Your task to perform on an android device: create a new album in the google photos Image 0: 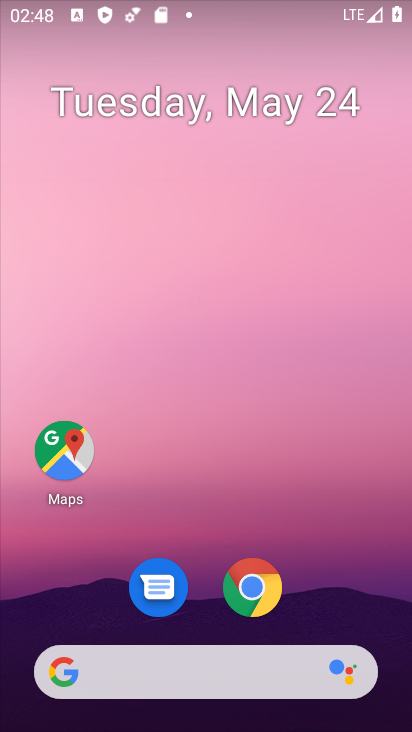
Step 0: drag from (235, 699) to (323, 119)
Your task to perform on an android device: create a new album in the google photos Image 1: 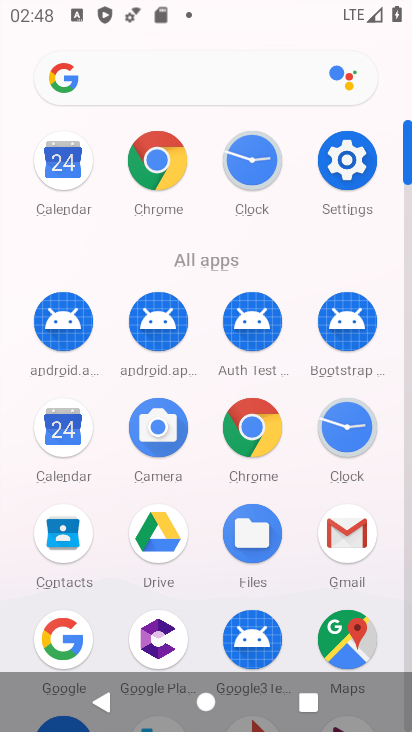
Step 1: drag from (242, 580) to (237, 86)
Your task to perform on an android device: create a new album in the google photos Image 2: 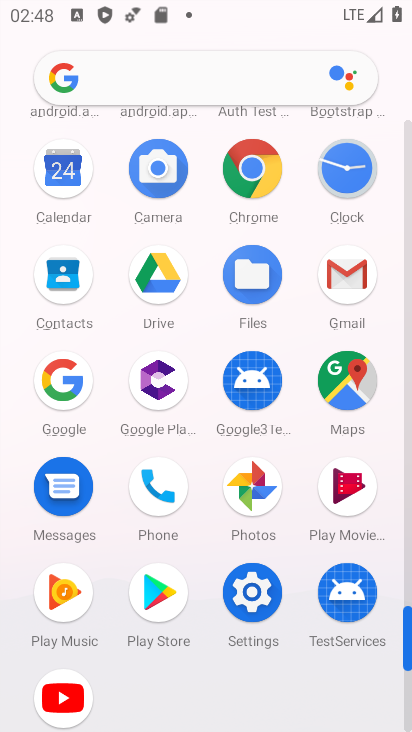
Step 2: click (256, 486)
Your task to perform on an android device: create a new album in the google photos Image 3: 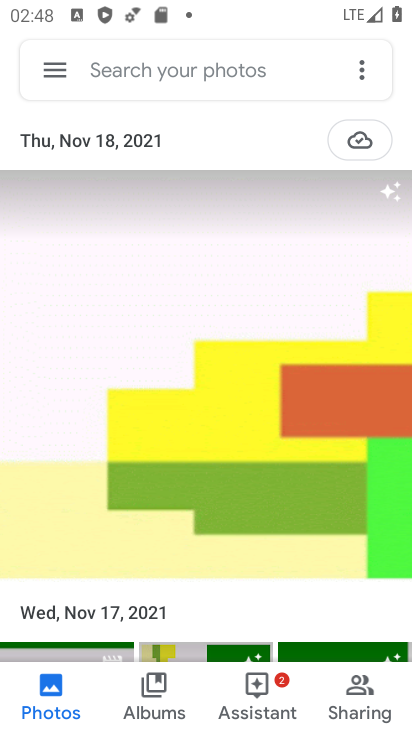
Step 3: click (208, 383)
Your task to perform on an android device: create a new album in the google photos Image 4: 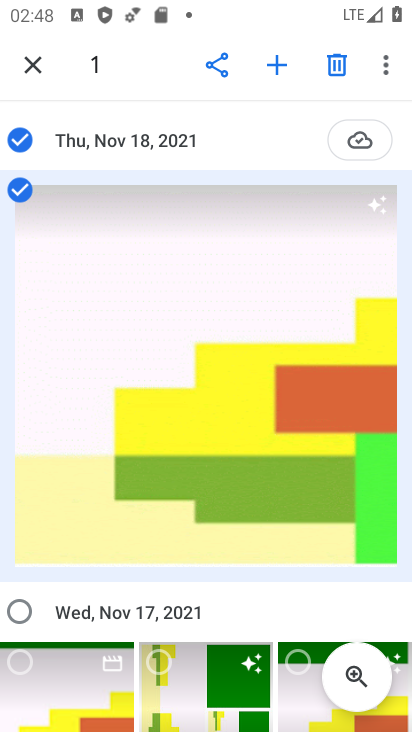
Step 4: click (287, 62)
Your task to perform on an android device: create a new album in the google photos Image 5: 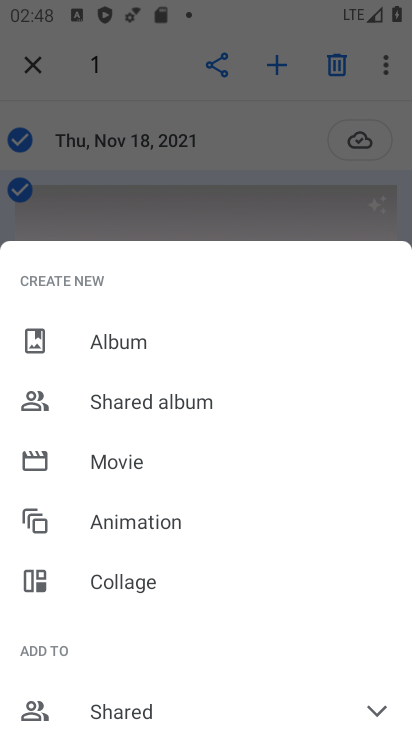
Step 5: click (118, 326)
Your task to perform on an android device: create a new album in the google photos Image 6: 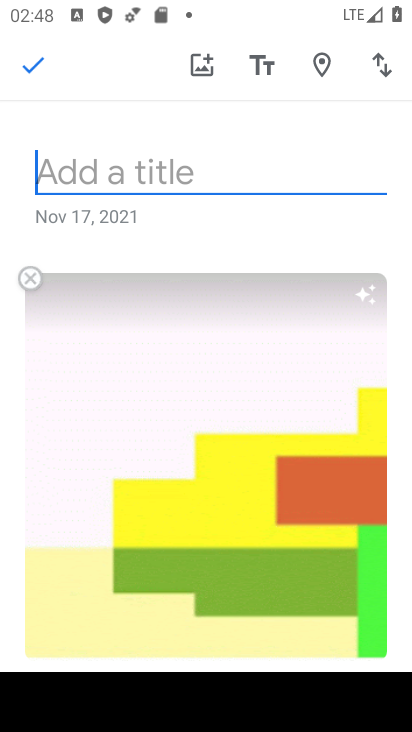
Step 6: type "hhh"
Your task to perform on an android device: create a new album in the google photos Image 7: 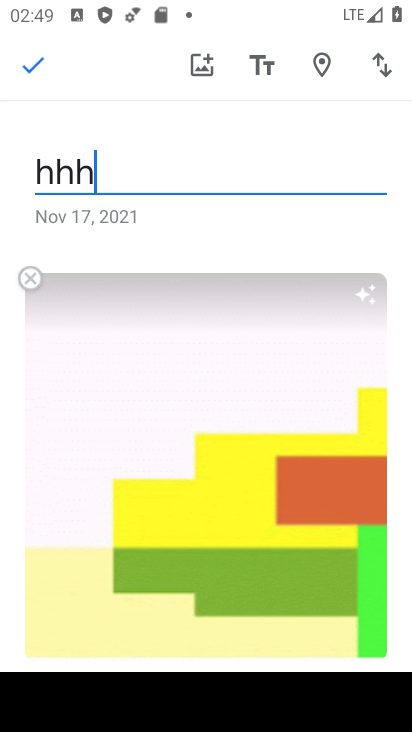
Step 7: click (25, 72)
Your task to perform on an android device: create a new album in the google photos Image 8: 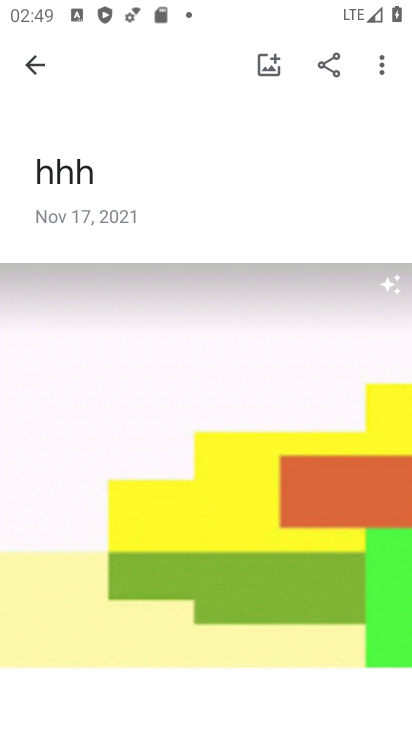
Step 8: task complete